Your task to perform on an android device: change notification settings in the gmail app Image 0: 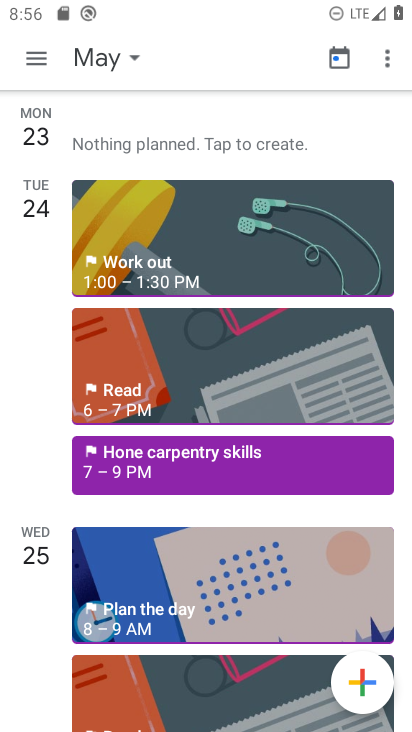
Step 0: press home button
Your task to perform on an android device: change notification settings in the gmail app Image 1: 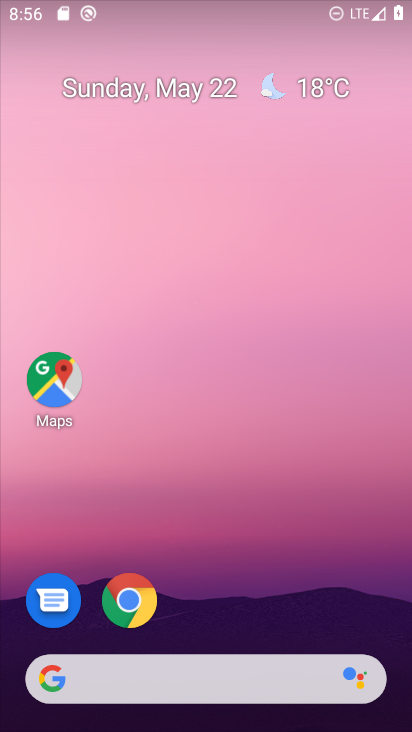
Step 1: drag from (373, 645) to (294, 142)
Your task to perform on an android device: change notification settings in the gmail app Image 2: 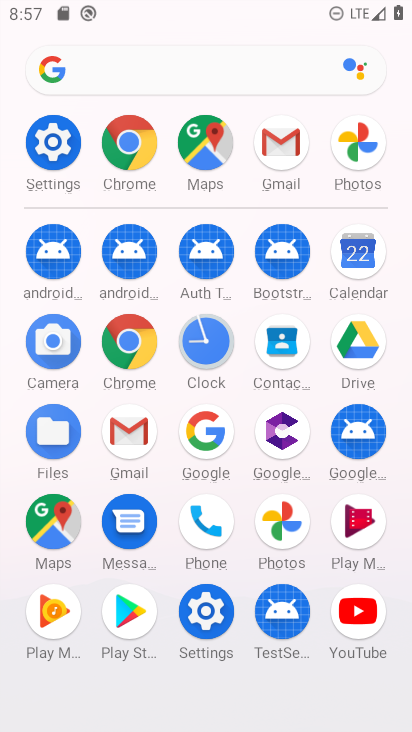
Step 2: click (123, 429)
Your task to perform on an android device: change notification settings in the gmail app Image 3: 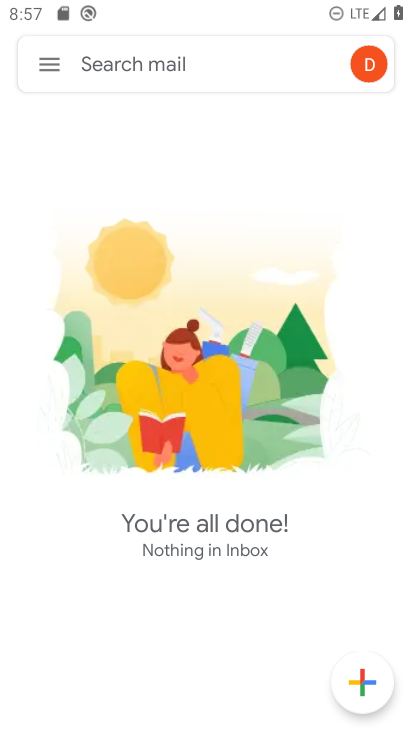
Step 3: click (46, 53)
Your task to perform on an android device: change notification settings in the gmail app Image 4: 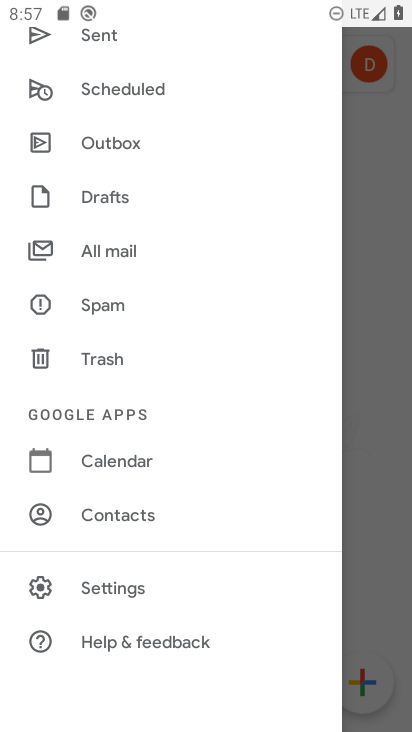
Step 4: click (133, 591)
Your task to perform on an android device: change notification settings in the gmail app Image 5: 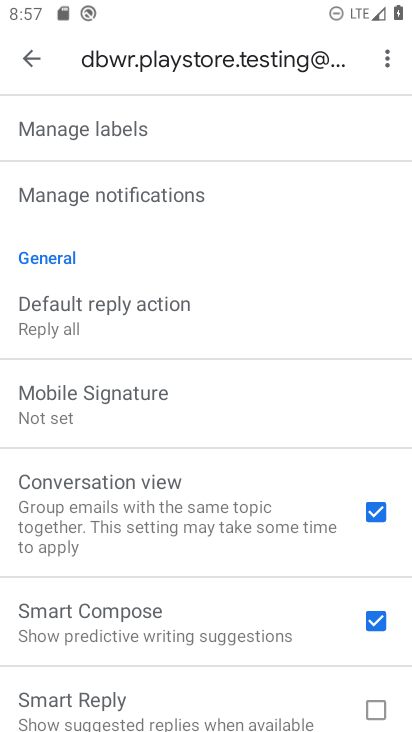
Step 5: drag from (151, 183) to (180, 731)
Your task to perform on an android device: change notification settings in the gmail app Image 6: 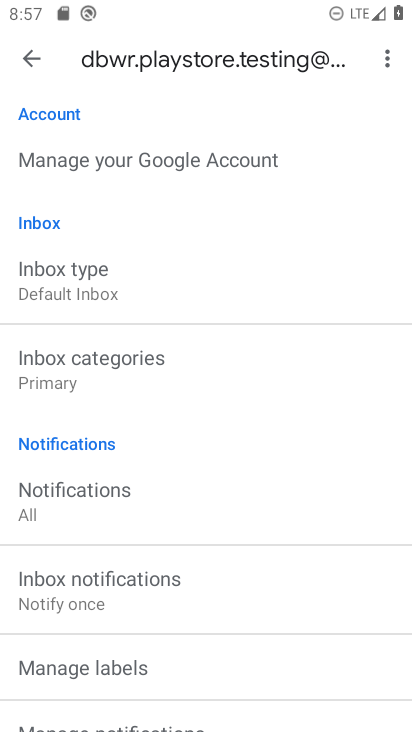
Step 6: click (132, 499)
Your task to perform on an android device: change notification settings in the gmail app Image 7: 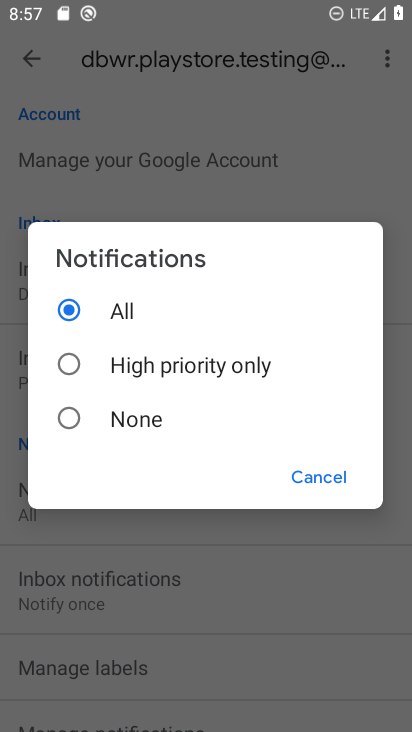
Step 7: click (107, 421)
Your task to perform on an android device: change notification settings in the gmail app Image 8: 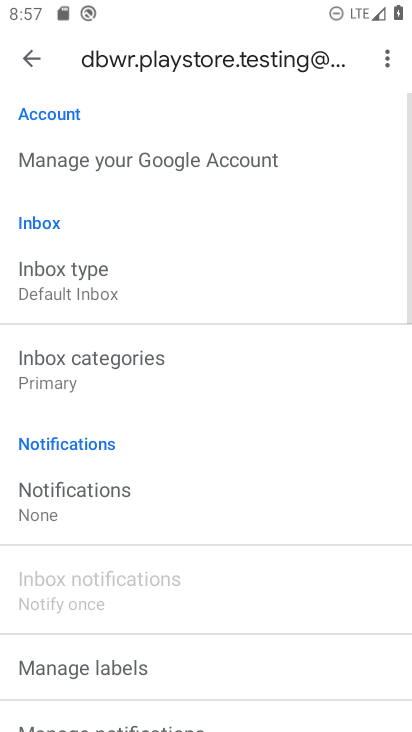
Step 8: task complete